Your task to perform on an android device: Find coffee shops on Maps Image 0: 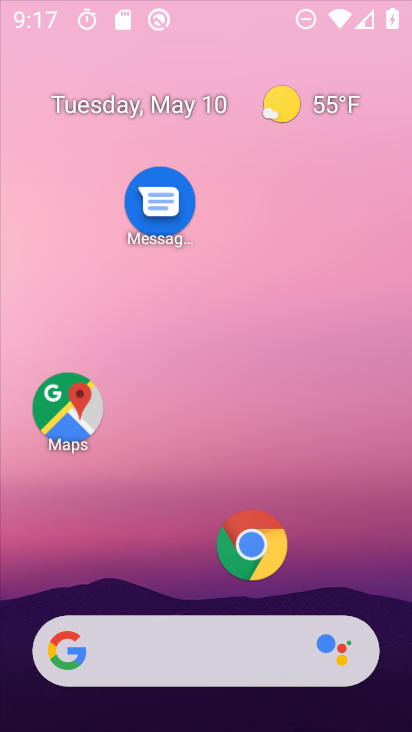
Step 0: drag from (186, 592) to (202, 155)
Your task to perform on an android device: Find coffee shops on Maps Image 1: 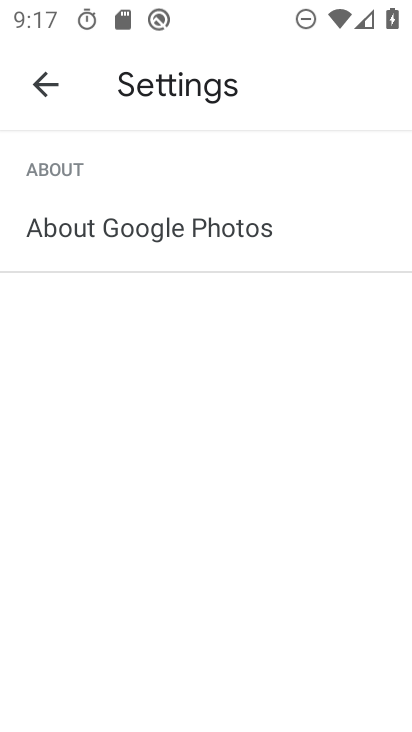
Step 1: press home button
Your task to perform on an android device: Find coffee shops on Maps Image 2: 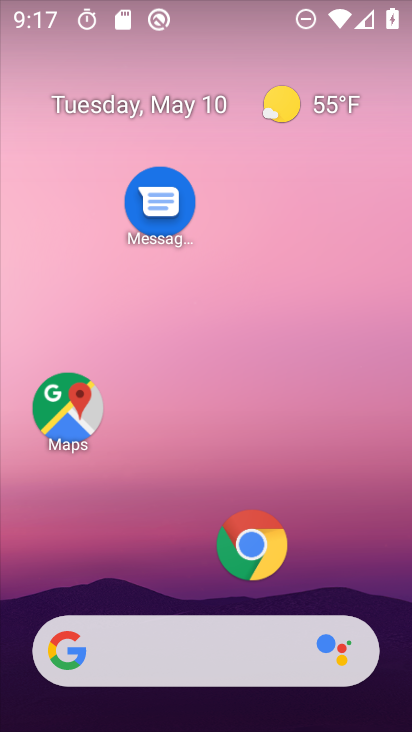
Step 2: click (62, 414)
Your task to perform on an android device: Find coffee shops on Maps Image 3: 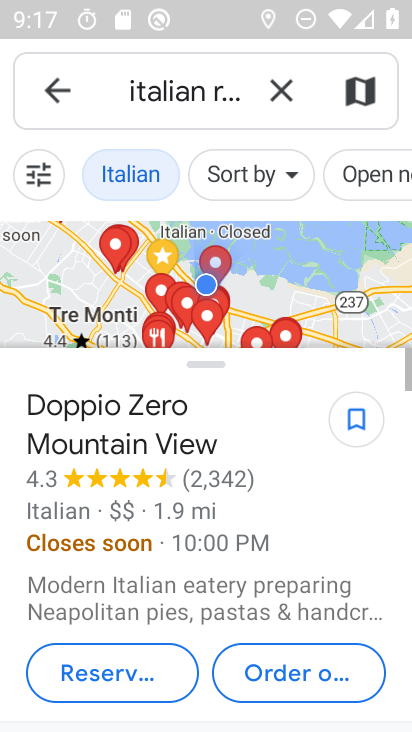
Step 3: click (290, 99)
Your task to perform on an android device: Find coffee shops on Maps Image 4: 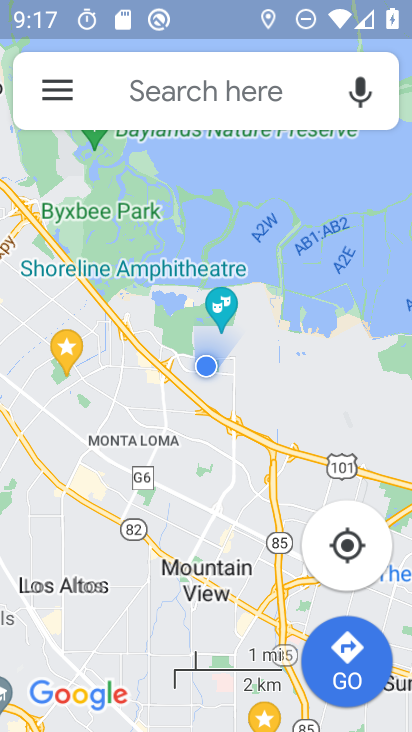
Step 4: click (203, 98)
Your task to perform on an android device: Find coffee shops on Maps Image 5: 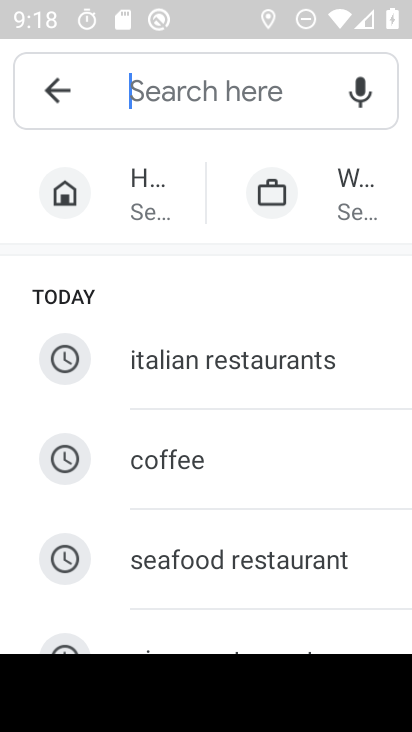
Step 5: type "coffee shops"
Your task to perform on an android device: Find coffee shops on Maps Image 6: 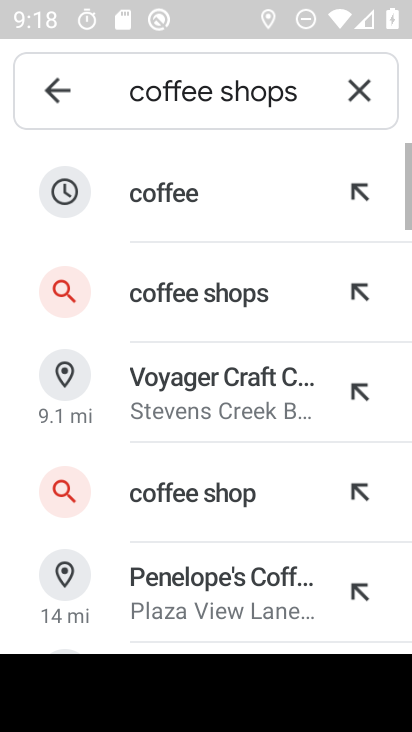
Step 6: click (224, 284)
Your task to perform on an android device: Find coffee shops on Maps Image 7: 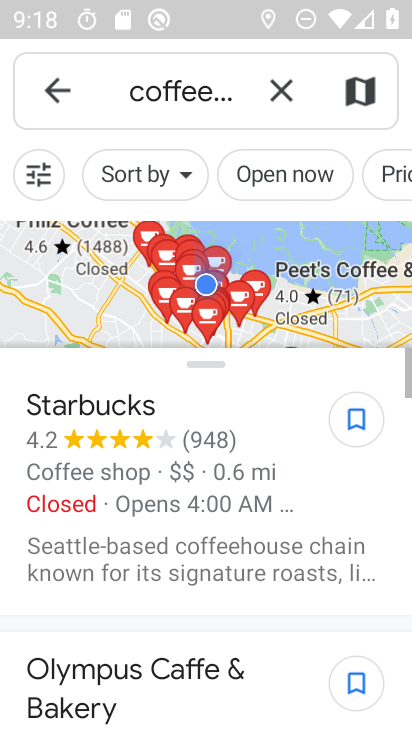
Step 7: task complete